Your task to perform on an android device: delete a single message in the gmail app Image 0: 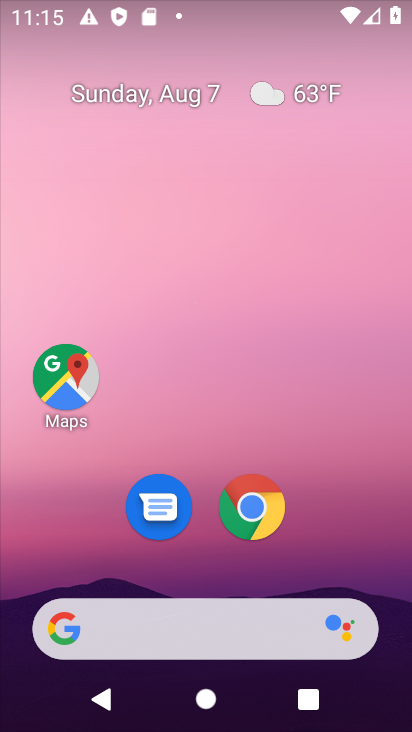
Step 0: drag from (365, 531) to (304, 179)
Your task to perform on an android device: delete a single message in the gmail app Image 1: 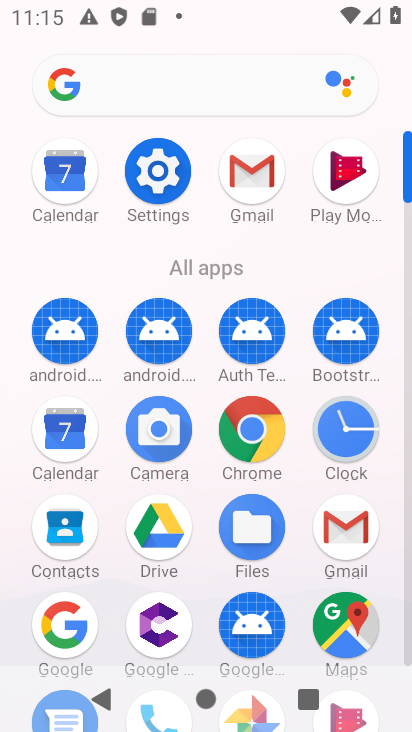
Step 1: click (343, 532)
Your task to perform on an android device: delete a single message in the gmail app Image 2: 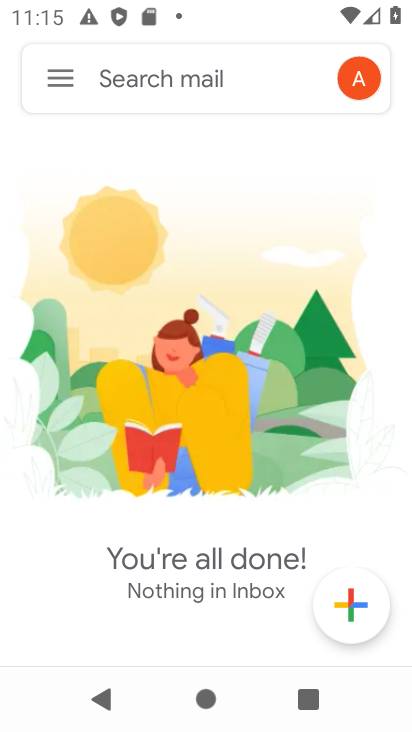
Step 2: click (66, 92)
Your task to perform on an android device: delete a single message in the gmail app Image 3: 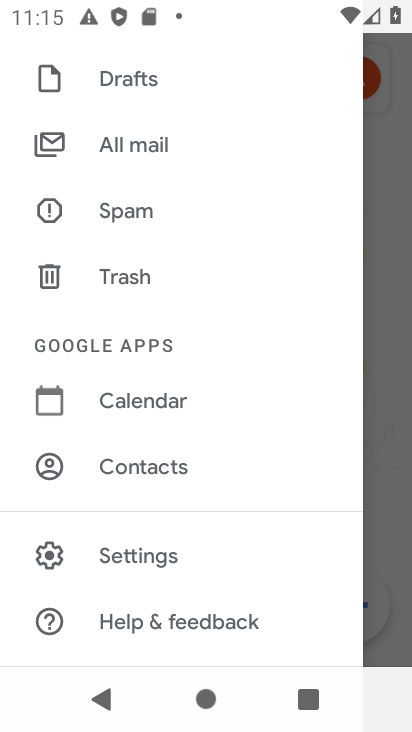
Step 3: click (131, 138)
Your task to perform on an android device: delete a single message in the gmail app Image 4: 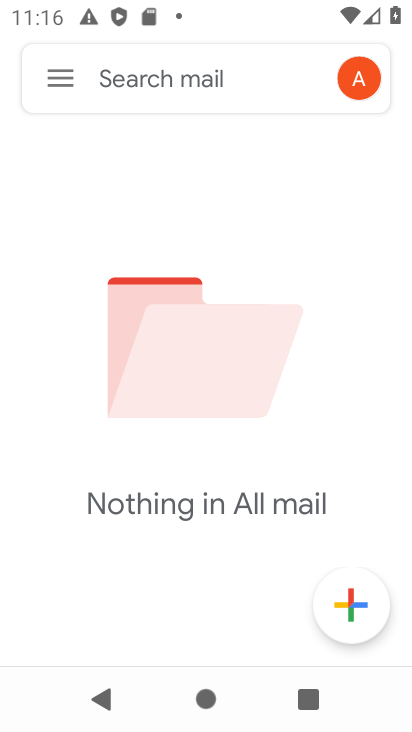
Step 4: task complete